Your task to perform on an android device: change text size in settings app Image 0: 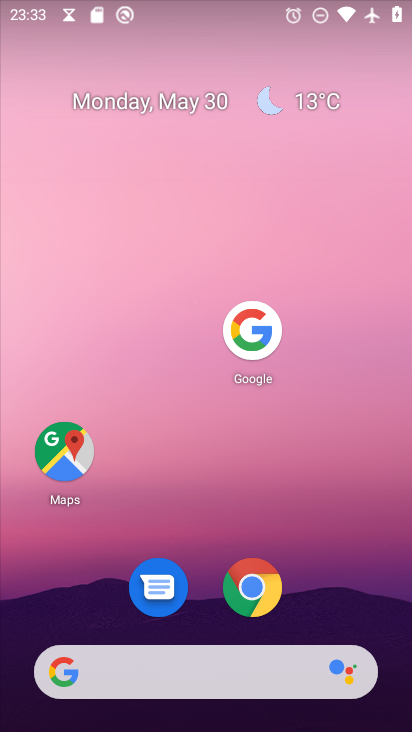
Step 0: press home button
Your task to perform on an android device: change text size in settings app Image 1: 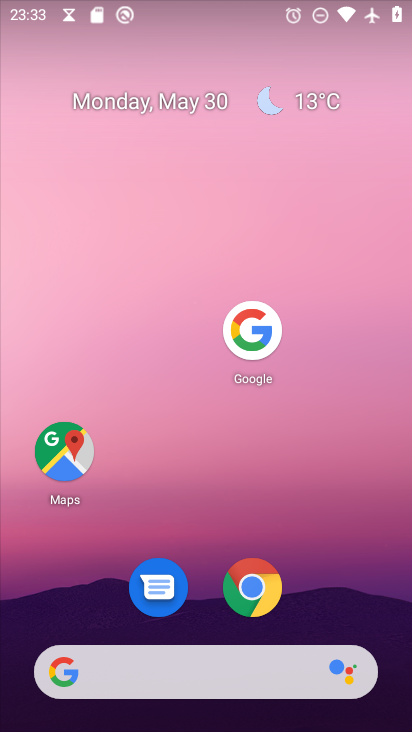
Step 1: drag from (194, 656) to (303, 251)
Your task to perform on an android device: change text size in settings app Image 2: 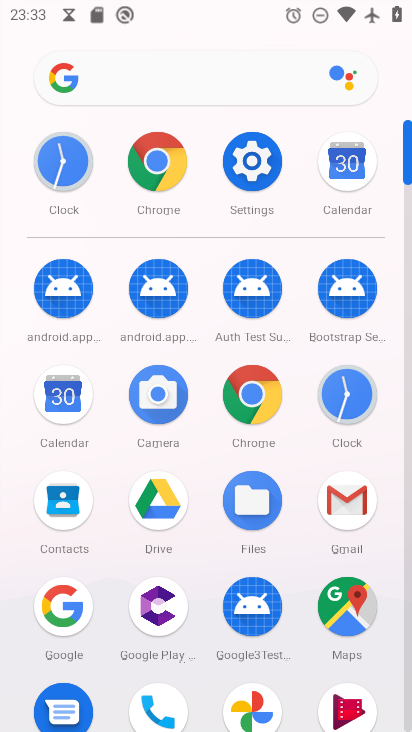
Step 2: click (253, 167)
Your task to perform on an android device: change text size in settings app Image 3: 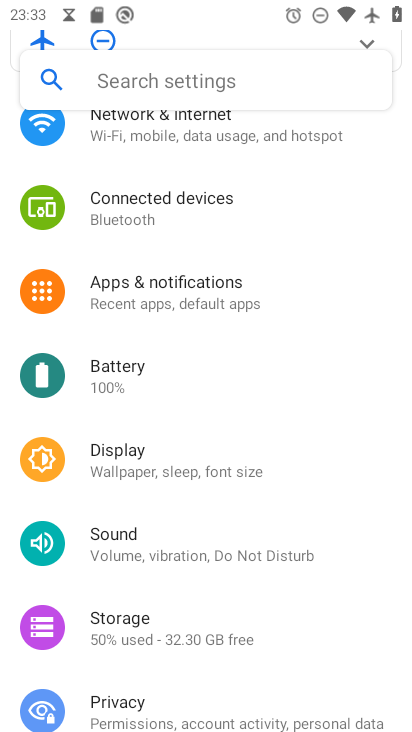
Step 3: click (201, 470)
Your task to perform on an android device: change text size in settings app Image 4: 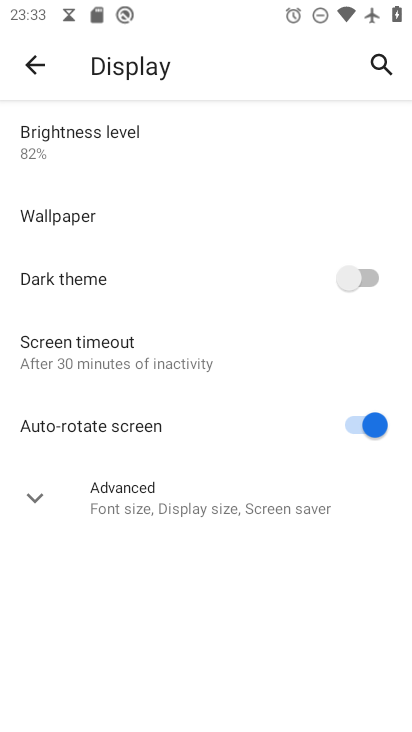
Step 4: click (114, 496)
Your task to perform on an android device: change text size in settings app Image 5: 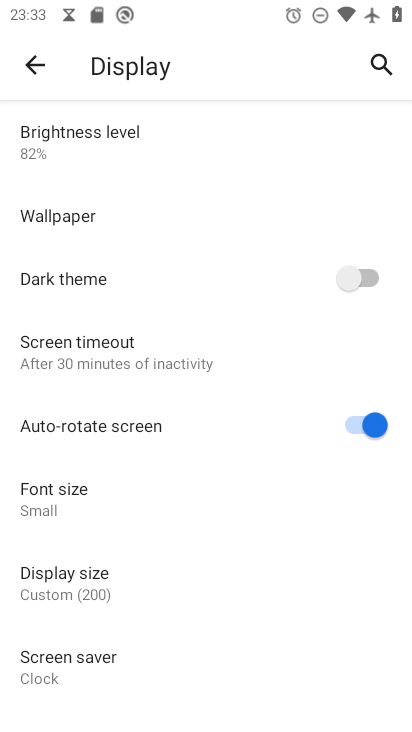
Step 5: click (66, 500)
Your task to perform on an android device: change text size in settings app Image 6: 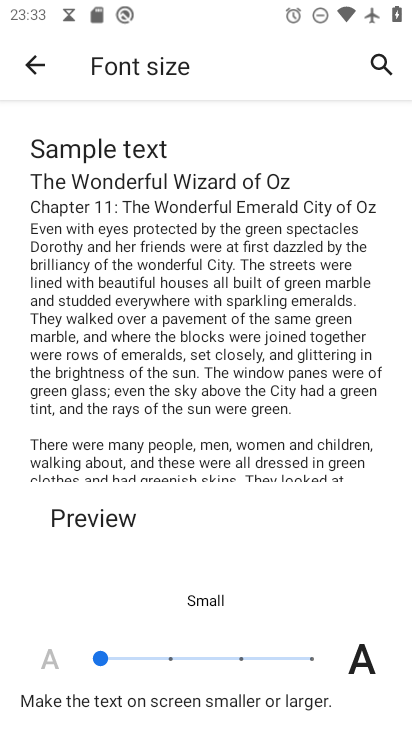
Step 6: click (166, 656)
Your task to perform on an android device: change text size in settings app Image 7: 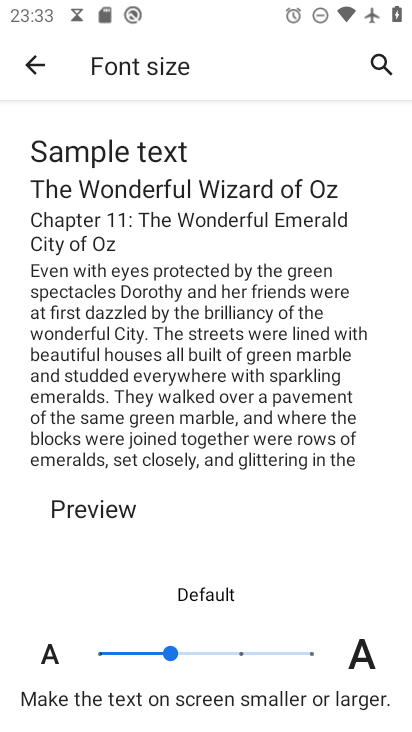
Step 7: task complete